Your task to perform on an android device: turn on airplane mode Image 0: 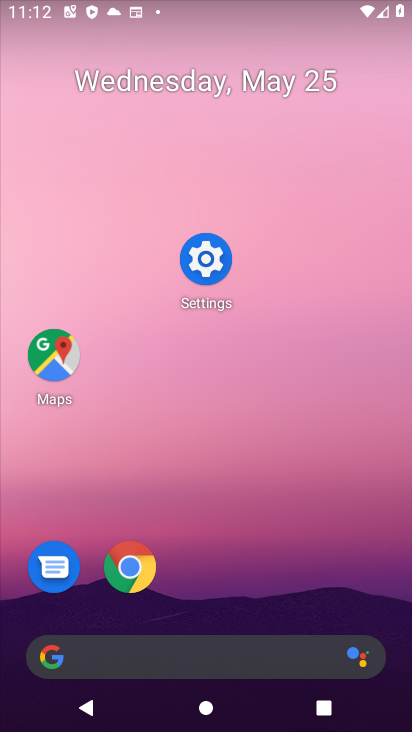
Step 0: drag from (257, 589) to (162, 160)
Your task to perform on an android device: turn on airplane mode Image 1: 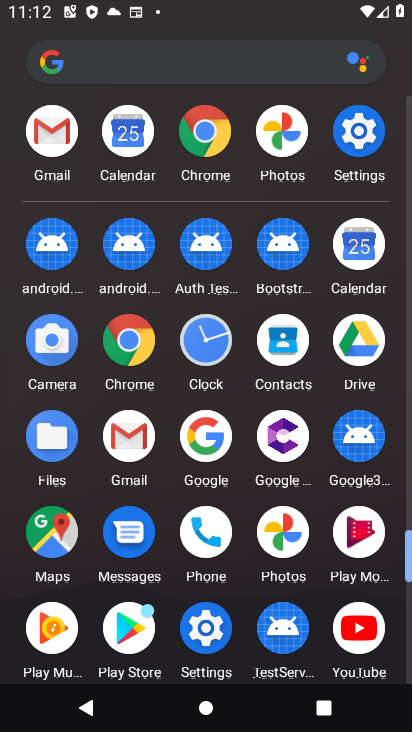
Step 1: click (382, 161)
Your task to perform on an android device: turn on airplane mode Image 2: 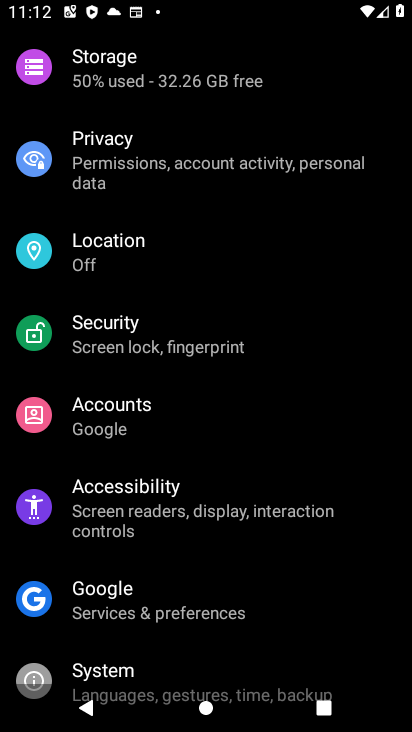
Step 2: drag from (213, 166) to (128, 699)
Your task to perform on an android device: turn on airplane mode Image 3: 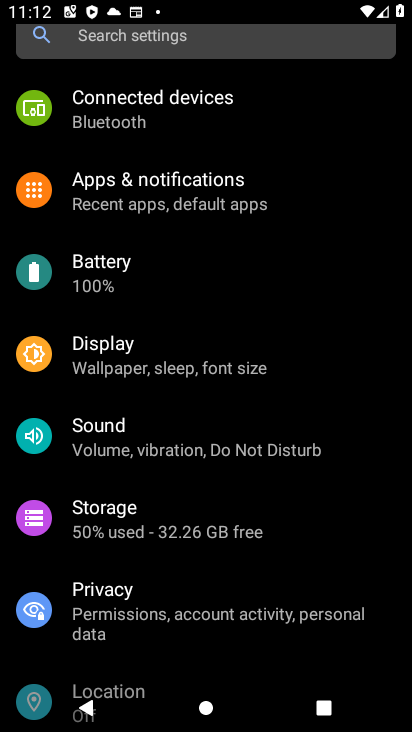
Step 3: drag from (184, 420) to (18, 703)
Your task to perform on an android device: turn on airplane mode Image 4: 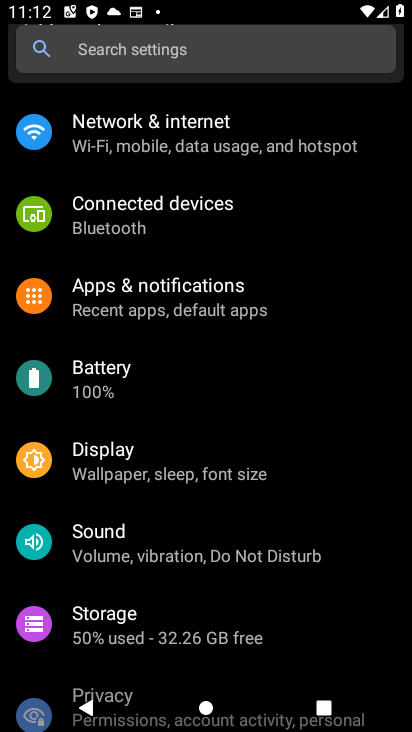
Step 4: click (309, 172)
Your task to perform on an android device: turn on airplane mode Image 5: 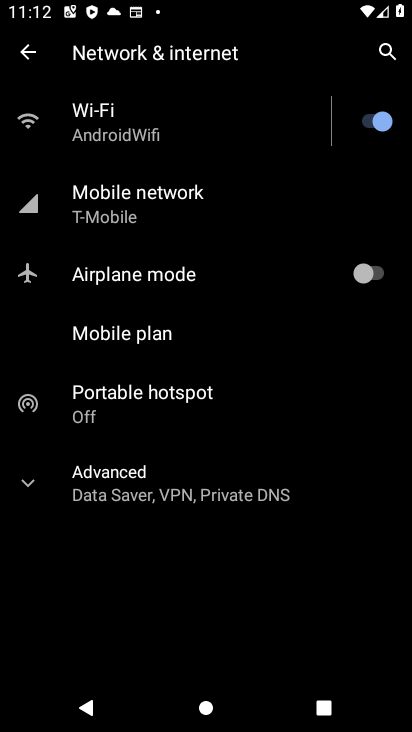
Step 5: click (276, 223)
Your task to perform on an android device: turn on airplane mode Image 6: 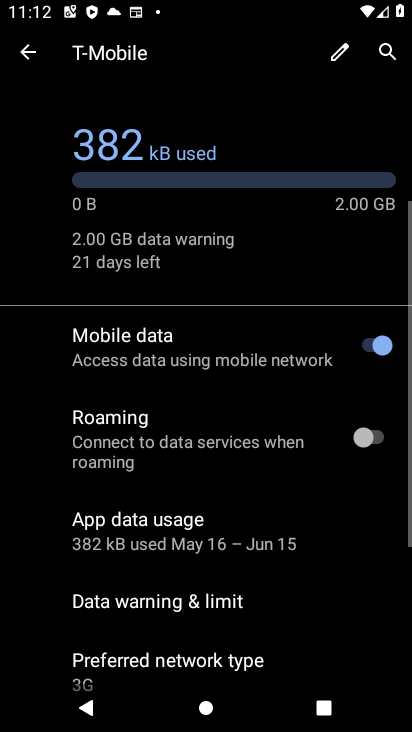
Step 6: task complete